Your task to perform on an android device: toggle location history Image 0: 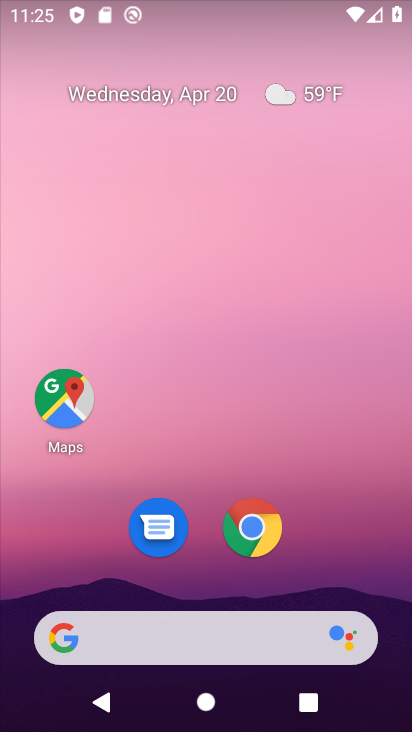
Step 0: drag from (343, 550) to (369, 237)
Your task to perform on an android device: toggle location history Image 1: 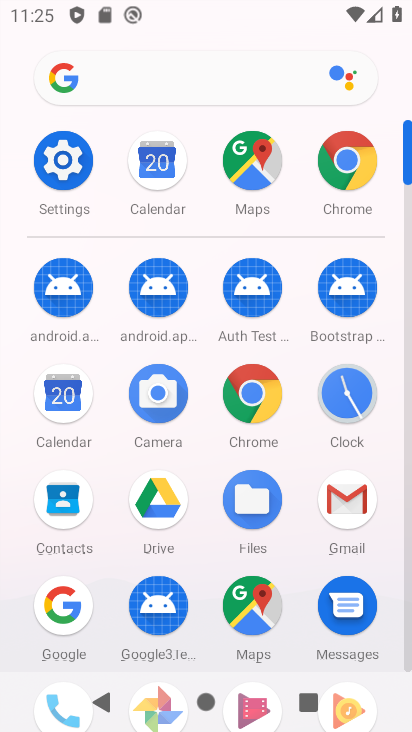
Step 1: click (79, 169)
Your task to perform on an android device: toggle location history Image 2: 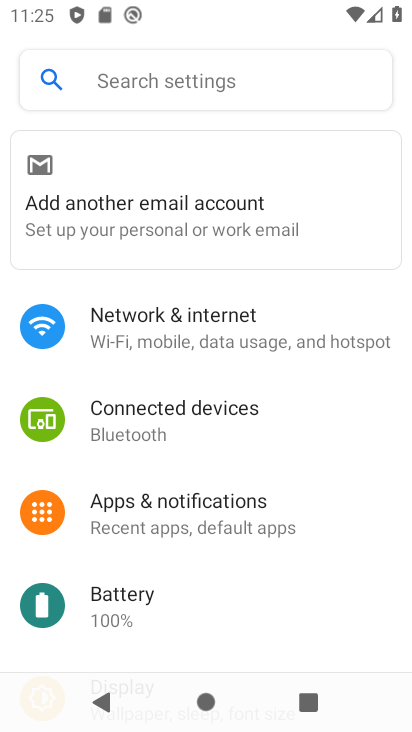
Step 2: drag from (212, 569) to (251, 301)
Your task to perform on an android device: toggle location history Image 3: 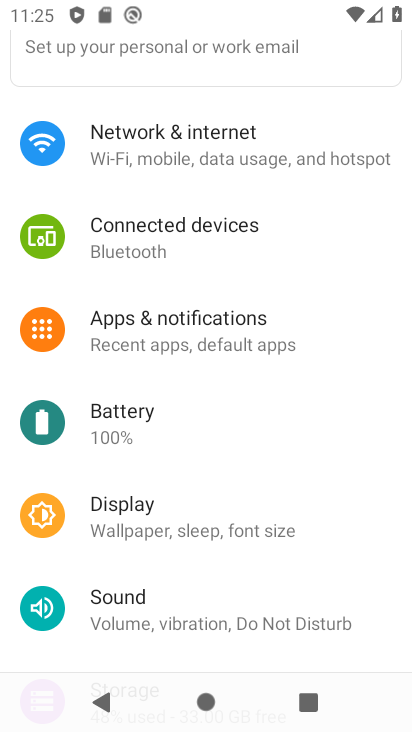
Step 3: drag from (250, 501) to (268, 253)
Your task to perform on an android device: toggle location history Image 4: 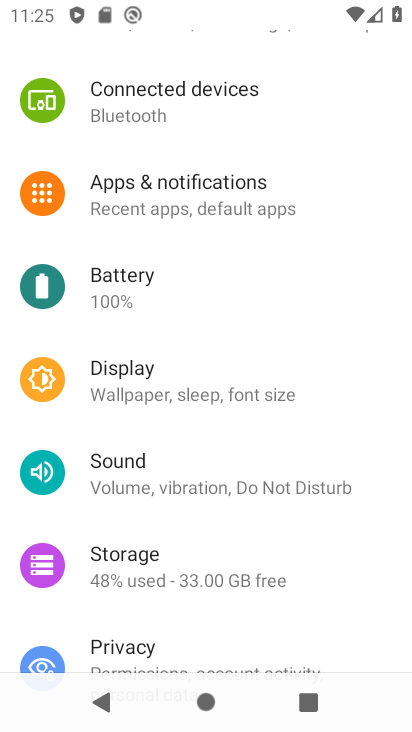
Step 4: drag from (293, 556) to (320, 251)
Your task to perform on an android device: toggle location history Image 5: 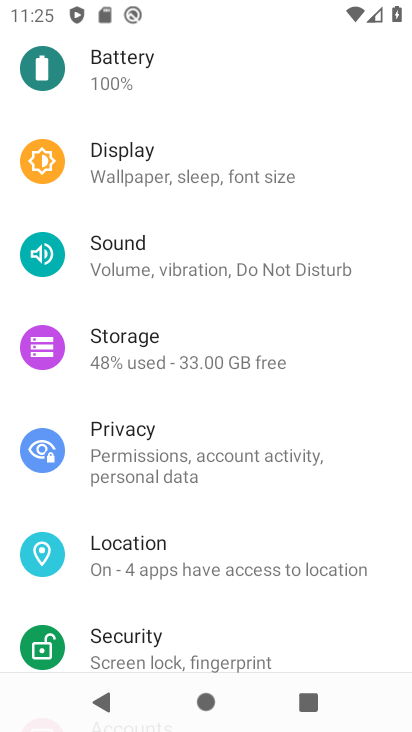
Step 5: drag from (242, 608) to (272, 394)
Your task to perform on an android device: toggle location history Image 6: 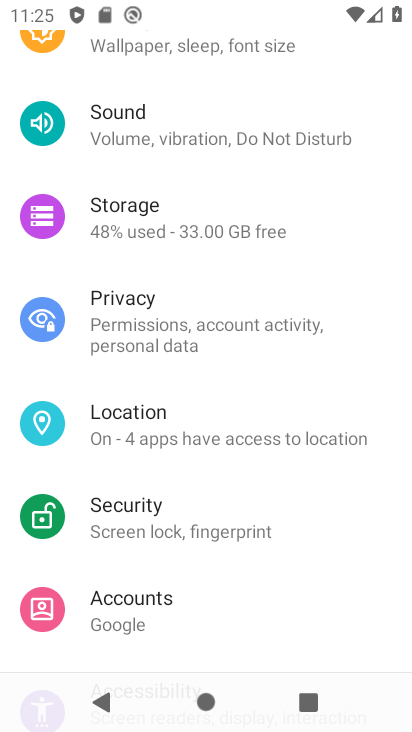
Step 6: click (148, 427)
Your task to perform on an android device: toggle location history Image 7: 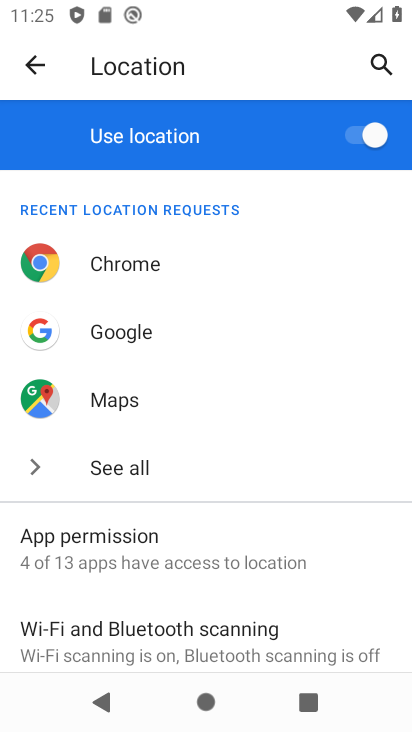
Step 7: click (350, 139)
Your task to perform on an android device: toggle location history Image 8: 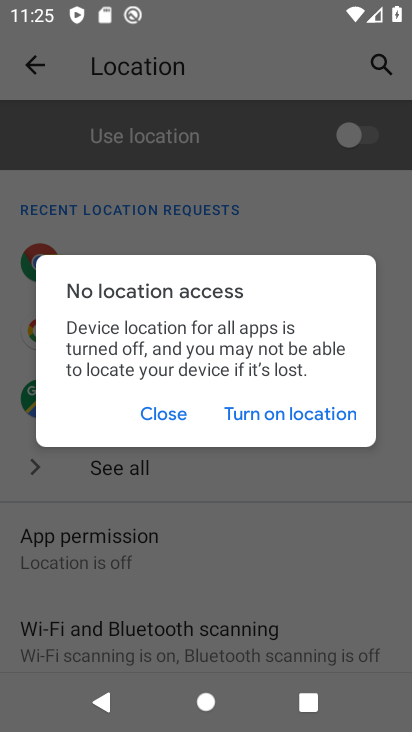
Step 8: task complete